Your task to perform on an android device: Add razer naga to the cart on bestbuy Image 0: 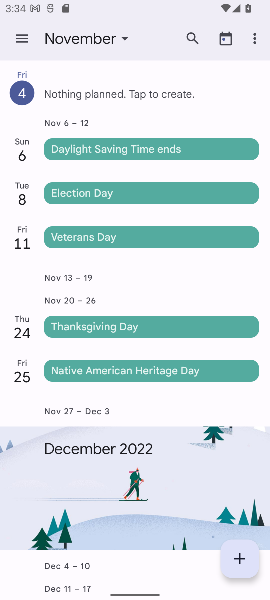
Step 0: press home button
Your task to perform on an android device: Add razer naga to the cart on bestbuy Image 1: 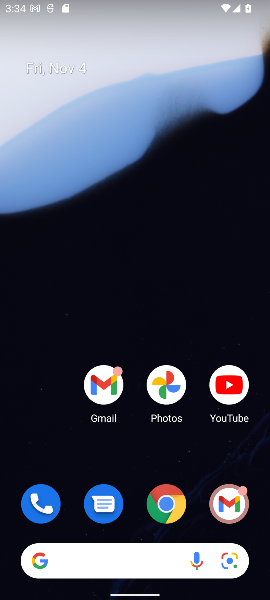
Step 1: click (165, 510)
Your task to perform on an android device: Add razer naga to the cart on bestbuy Image 2: 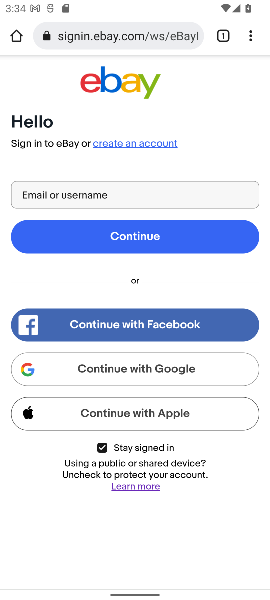
Step 2: click (100, 39)
Your task to perform on an android device: Add razer naga to the cart on bestbuy Image 3: 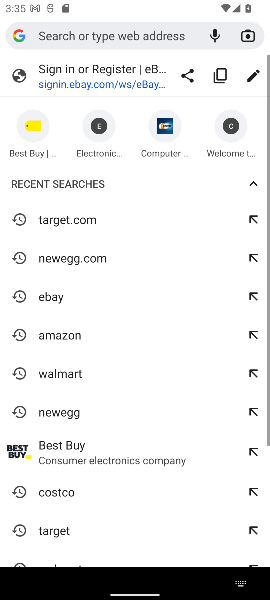
Step 3: click (35, 135)
Your task to perform on an android device: Add razer naga to the cart on bestbuy Image 4: 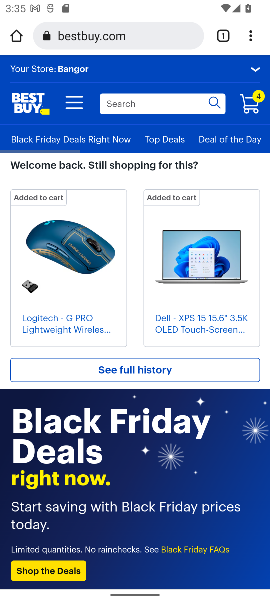
Step 4: click (141, 100)
Your task to perform on an android device: Add razer naga to the cart on bestbuy Image 5: 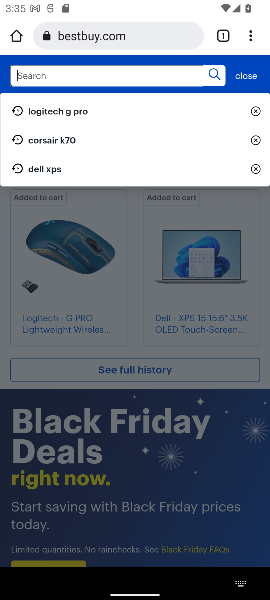
Step 5: type "razer naga"
Your task to perform on an android device: Add razer naga to the cart on bestbuy Image 6: 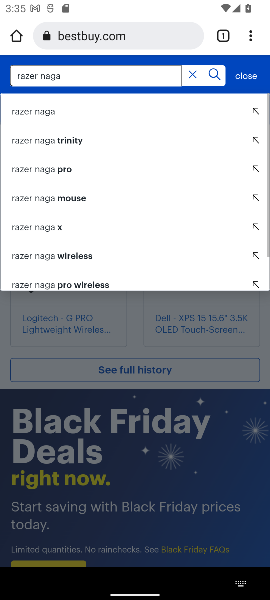
Step 6: click (34, 120)
Your task to perform on an android device: Add razer naga to the cart on bestbuy Image 7: 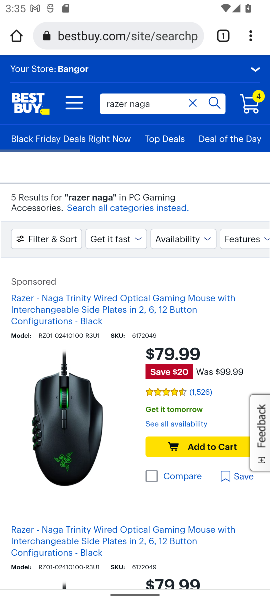
Step 7: click (86, 415)
Your task to perform on an android device: Add razer naga to the cart on bestbuy Image 8: 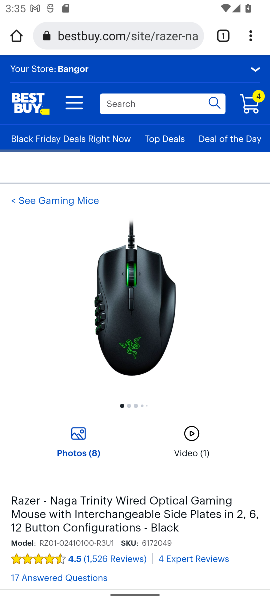
Step 8: drag from (120, 434) to (139, 175)
Your task to perform on an android device: Add razer naga to the cart on bestbuy Image 9: 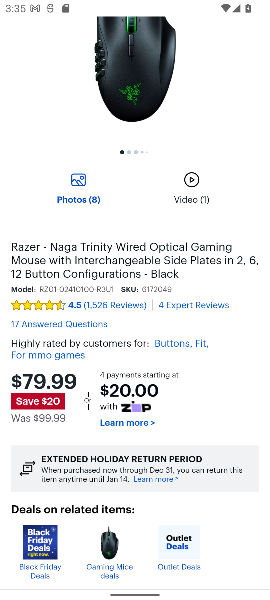
Step 9: drag from (201, 384) to (207, 190)
Your task to perform on an android device: Add razer naga to the cart on bestbuy Image 10: 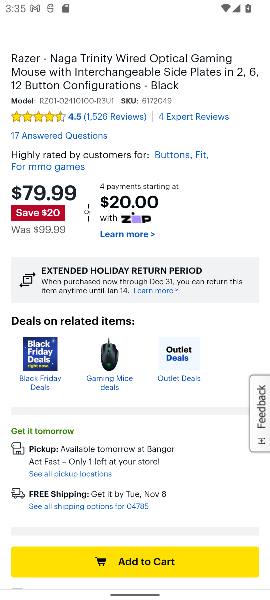
Step 10: drag from (146, 466) to (158, 282)
Your task to perform on an android device: Add razer naga to the cart on bestbuy Image 11: 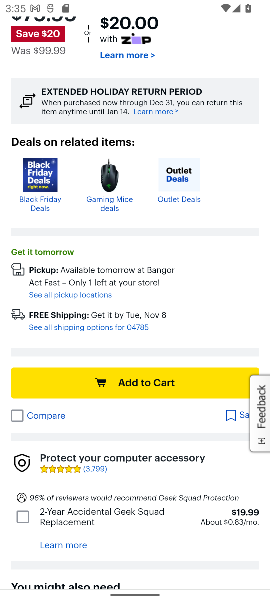
Step 11: click (140, 383)
Your task to perform on an android device: Add razer naga to the cart on bestbuy Image 12: 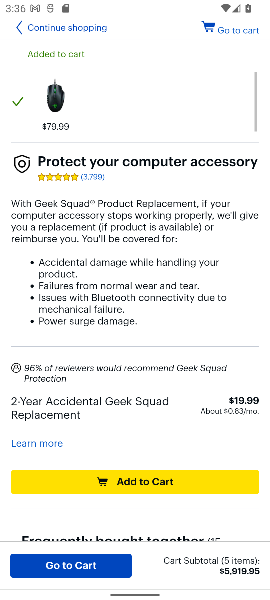
Step 12: task complete